Your task to perform on an android device: Open the calendar app, open the side menu, and click the "Day" option Image 0: 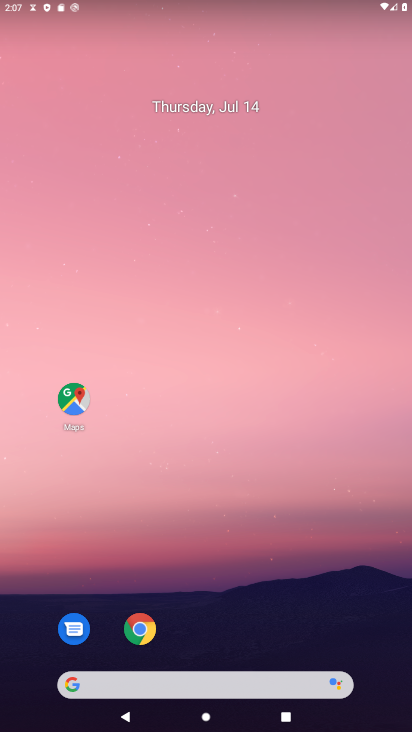
Step 0: drag from (207, 650) to (241, 10)
Your task to perform on an android device: Open the calendar app, open the side menu, and click the "Day" option Image 1: 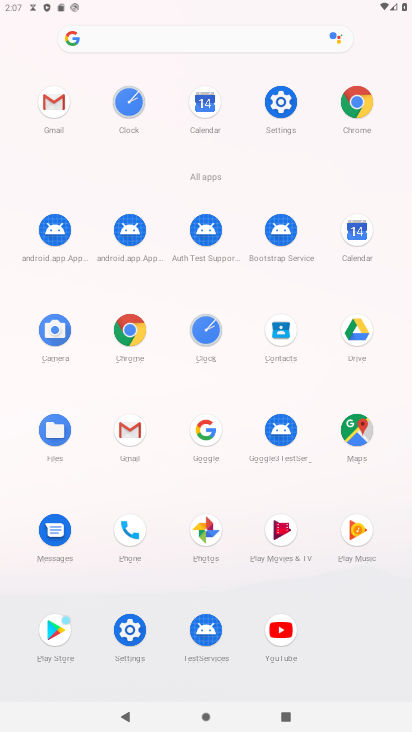
Step 1: click (358, 248)
Your task to perform on an android device: Open the calendar app, open the side menu, and click the "Day" option Image 2: 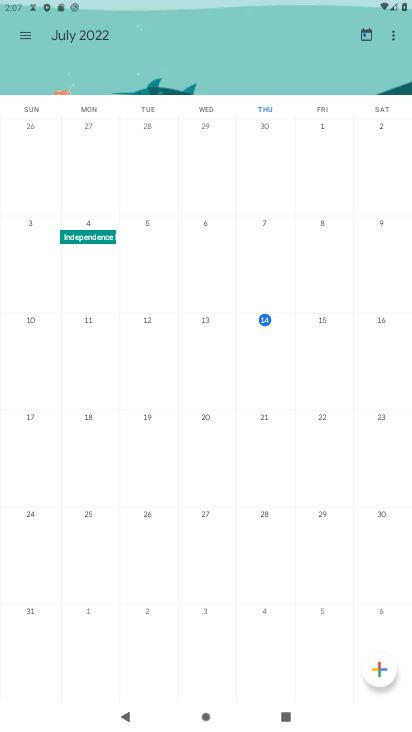
Step 2: click (20, 34)
Your task to perform on an android device: Open the calendar app, open the side menu, and click the "Day" option Image 3: 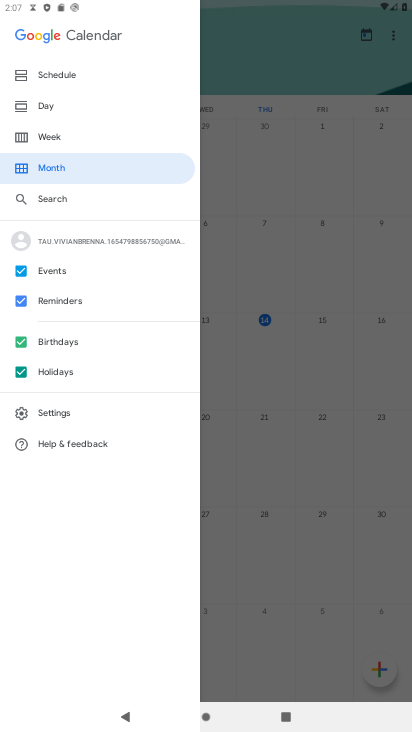
Step 3: click (56, 106)
Your task to perform on an android device: Open the calendar app, open the side menu, and click the "Day" option Image 4: 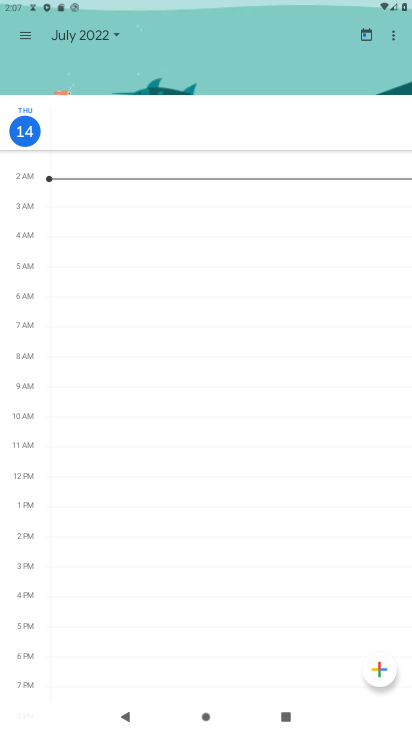
Step 4: task complete